Your task to perform on an android device: Is it going to rain tomorrow? Image 0: 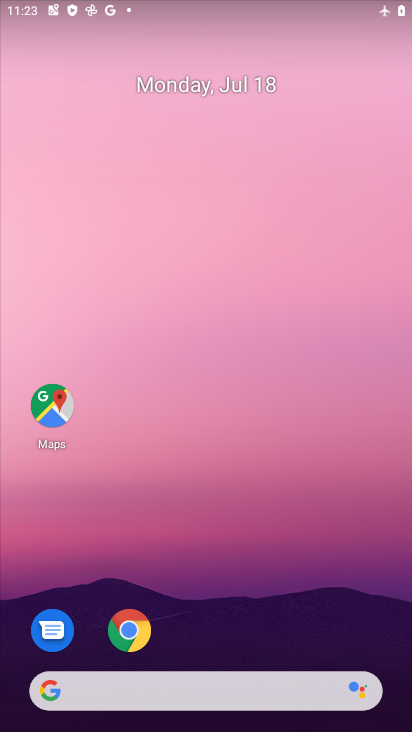
Step 0: drag from (352, 627) to (231, 80)
Your task to perform on an android device: Is it going to rain tomorrow? Image 1: 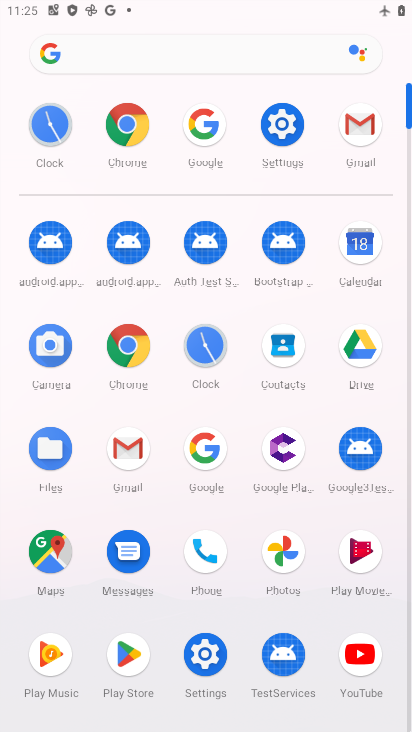
Step 1: click (203, 463)
Your task to perform on an android device: Is it going to rain tomorrow? Image 2: 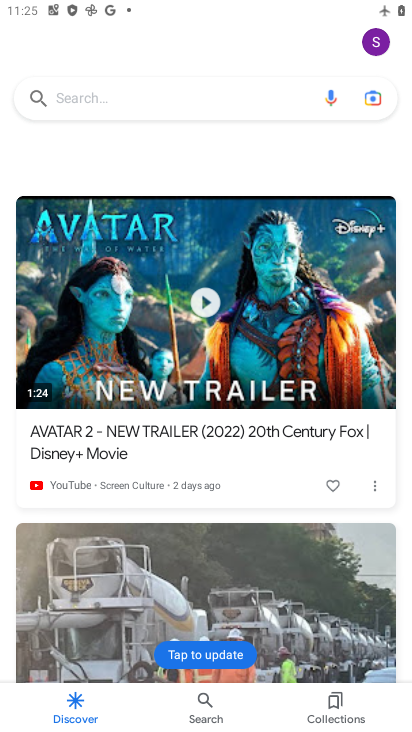
Step 2: click (178, 90)
Your task to perform on an android device: Is it going to rain tomorrow? Image 3: 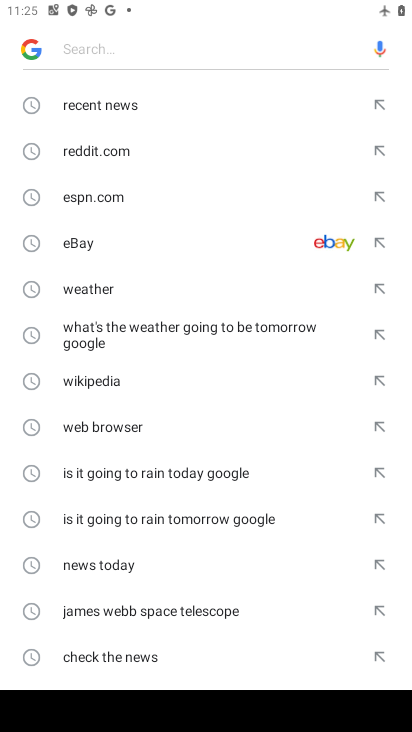
Step 3: click (163, 539)
Your task to perform on an android device: Is it going to rain tomorrow? Image 4: 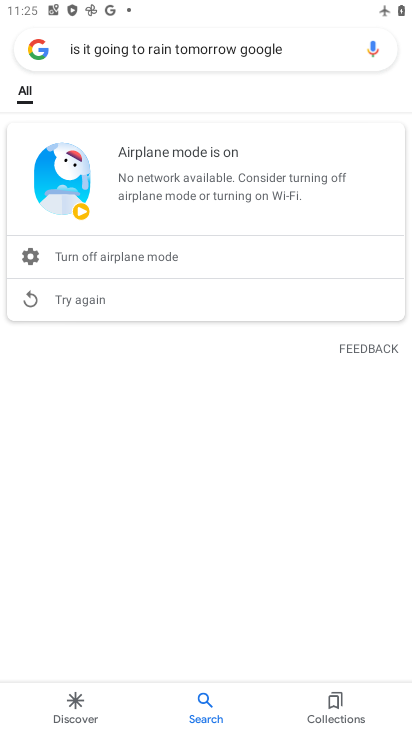
Step 4: task complete